Your task to perform on an android device: open chrome privacy settings Image 0: 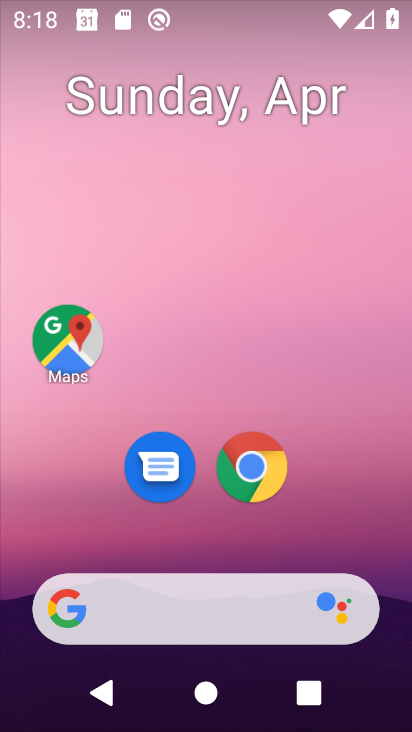
Step 0: click (262, 454)
Your task to perform on an android device: open chrome privacy settings Image 1: 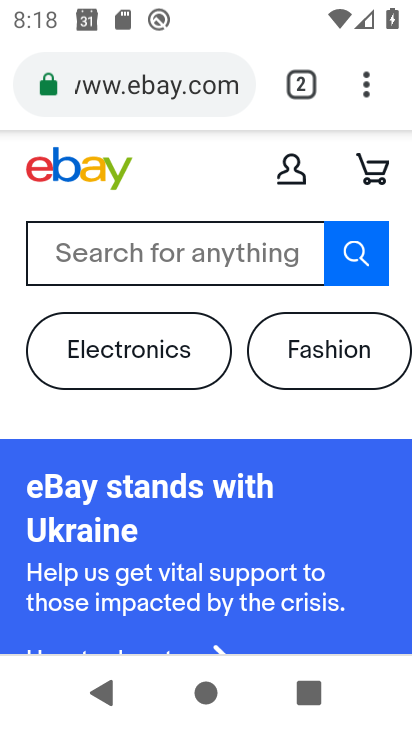
Step 1: click (366, 97)
Your task to perform on an android device: open chrome privacy settings Image 2: 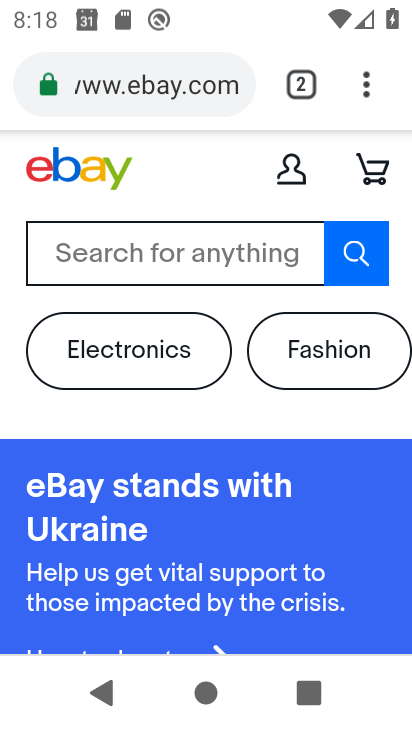
Step 2: click (366, 98)
Your task to perform on an android device: open chrome privacy settings Image 3: 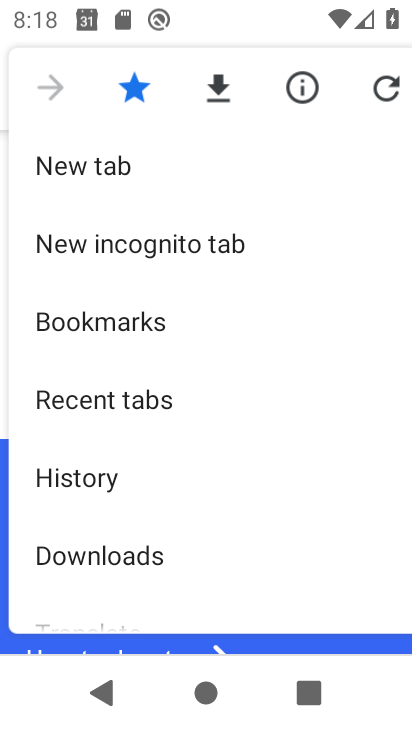
Step 3: drag from (263, 367) to (332, 157)
Your task to perform on an android device: open chrome privacy settings Image 4: 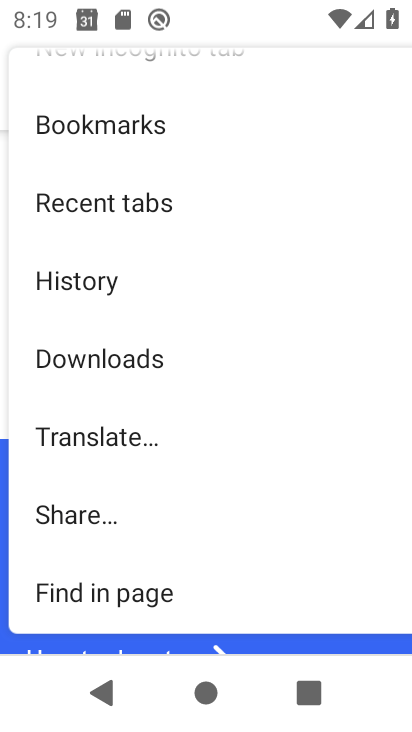
Step 4: drag from (114, 503) to (208, 215)
Your task to perform on an android device: open chrome privacy settings Image 5: 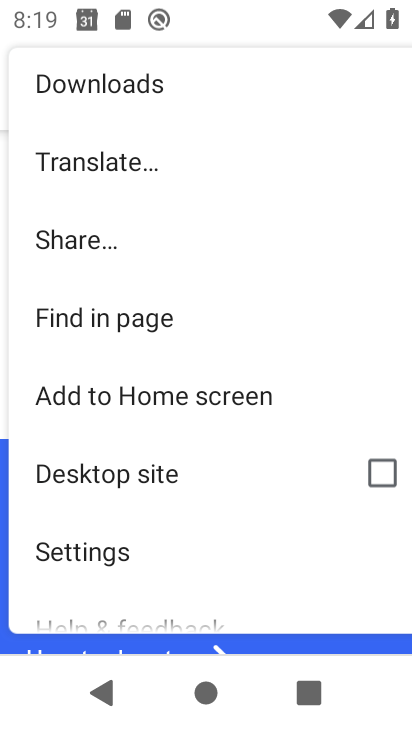
Step 5: click (166, 546)
Your task to perform on an android device: open chrome privacy settings Image 6: 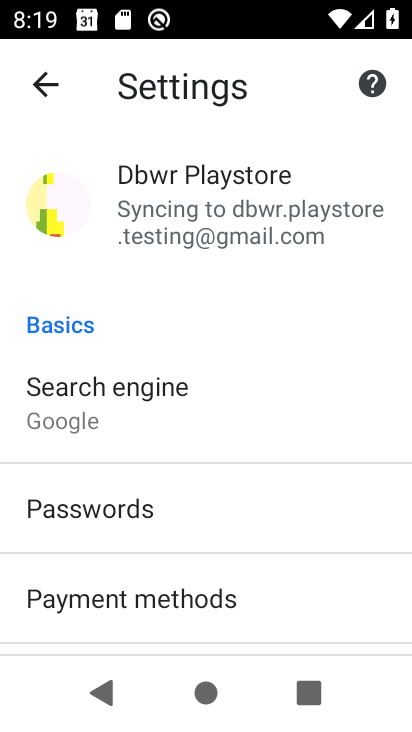
Step 6: drag from (187, 555) to (297, 341)
Your task to perform on an android device: open chrome privacy settings Image 7: 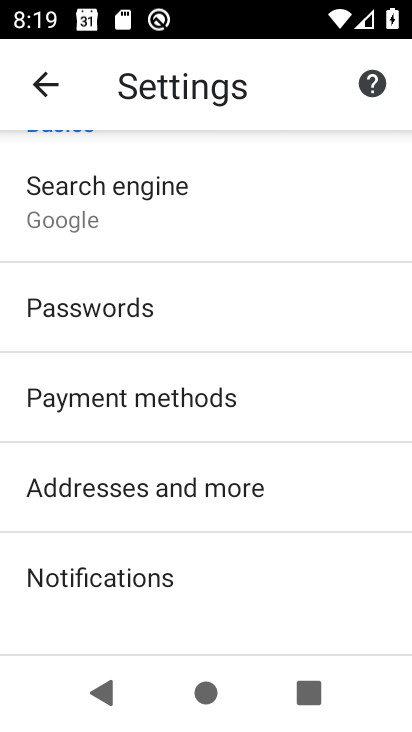
Step 7: drag from (209, 582) to (312, 339)
Your task to perform on an android device: open chrome privacy settings Image 8: 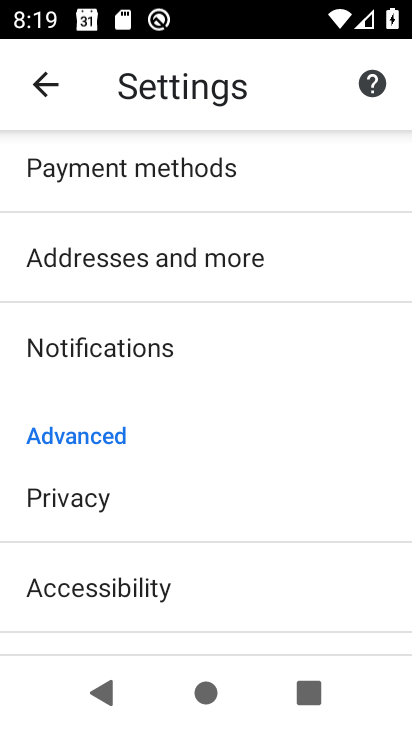
Step 8: click (226, 511)
Your task to perform on an android device: open chrome privacy settings Image 9: 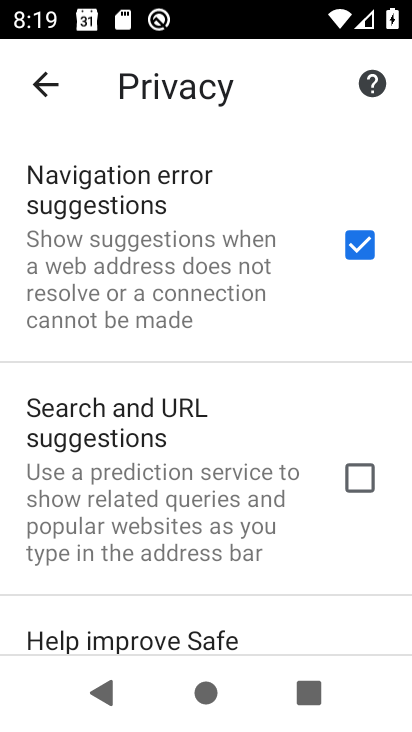
Step 9: task complete